Your task to perform on an android device: Open the phone app and click the voicemail tab. Image 0: 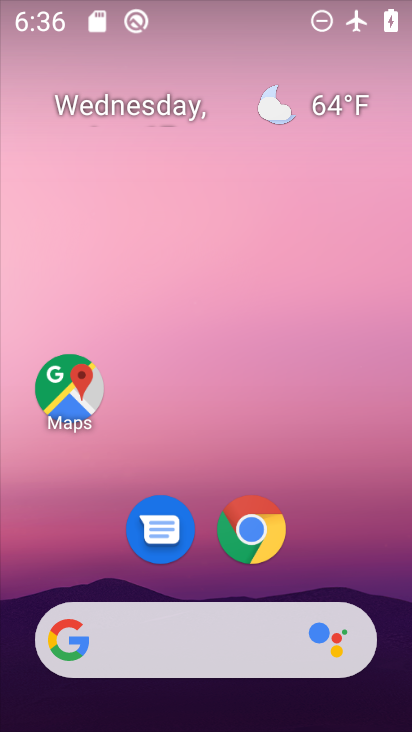
Step 0: click (186, 635)
Your task to perform on an android device: Open the phone app and click the voicemail tab. Image 1: 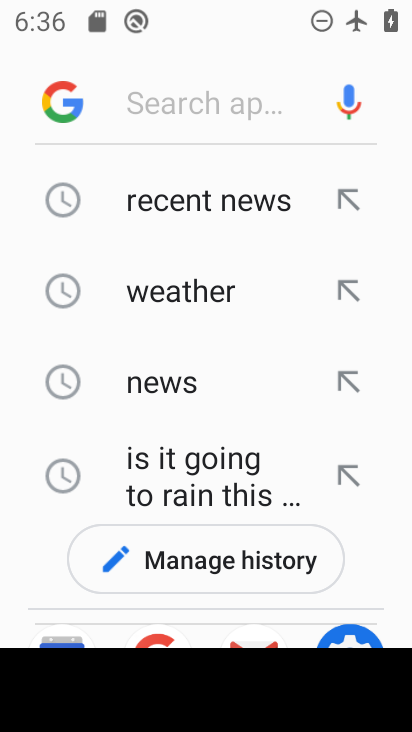
Step 1: press home button
Your task to perform on an android device: Open the phone app and click the voicemail tab. Image 2: 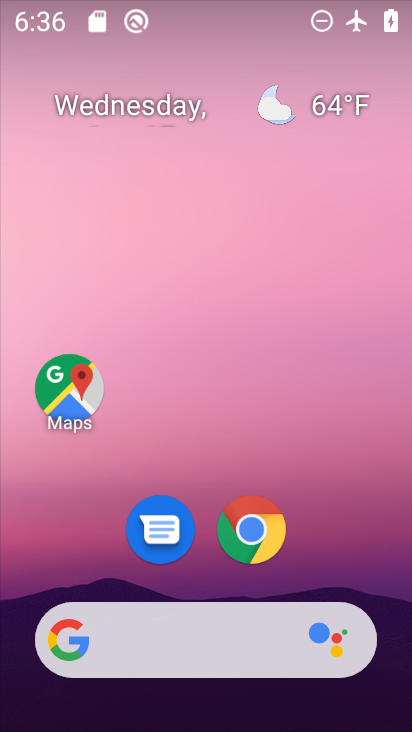
Step 2: drag from (201, 569) to (201, 64)
Your task to perform on an android device: Open the phone app and click the voicemail tab. Image 3: 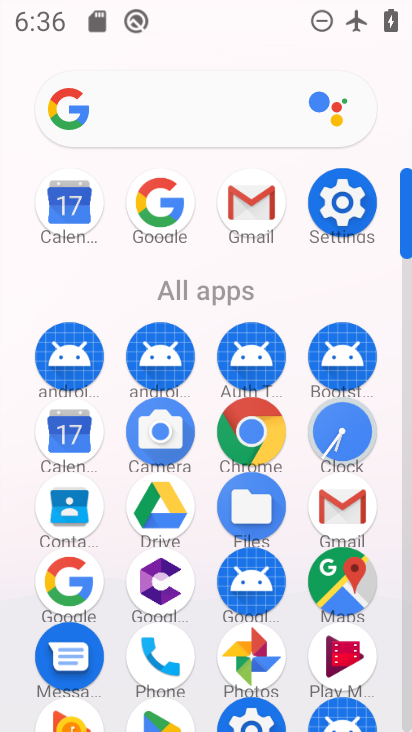
Step 3: click (180, 649)
Your task to perform on an android device: Open the phone app and click the voicemail tab. Image 4: 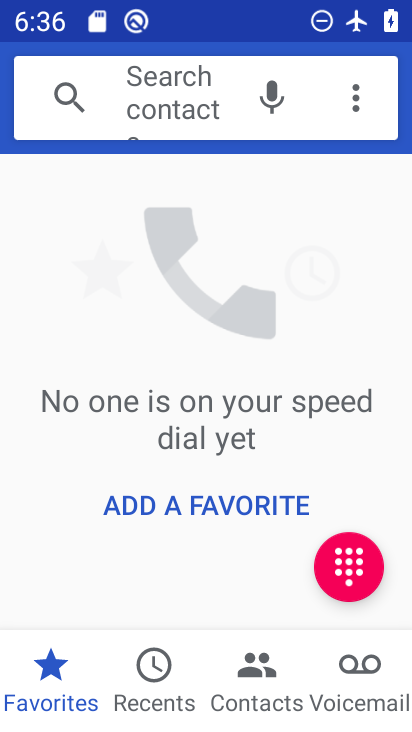
Step 4: click (350, 706)
Your task to perform on an android device: Open the phone app and click the voicemail tab. Image 5: 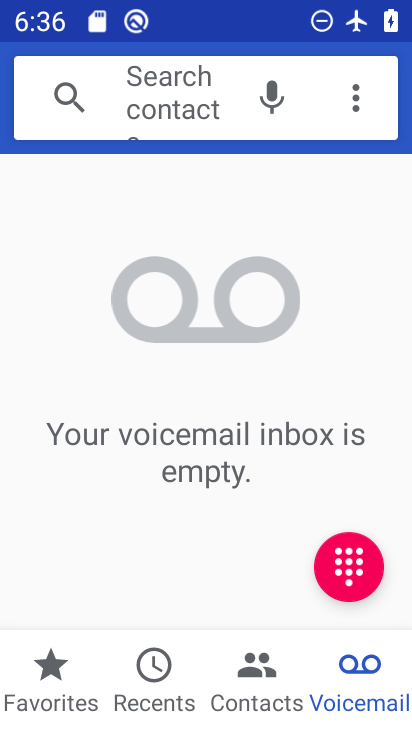
Step 5: task complete